Your task to perform on an android device: check data usage Image 0: 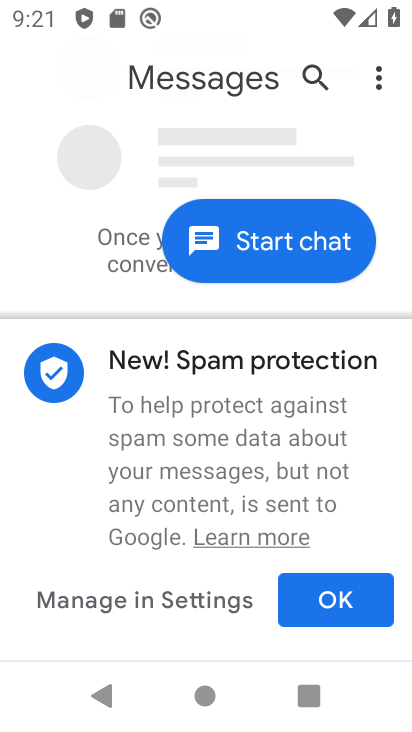
Step 0: press home button
Your task to perform on an android device: check data usage Image 1: 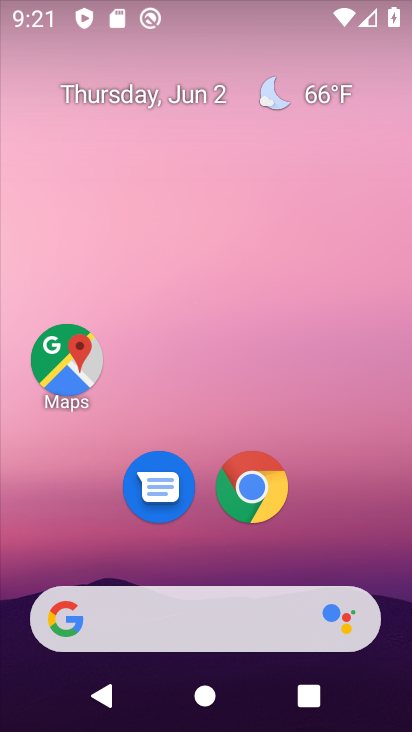
Step 1: drag from (229, 727) to (236, 141)
Your task to perform on an android device: check data usage Image 2: 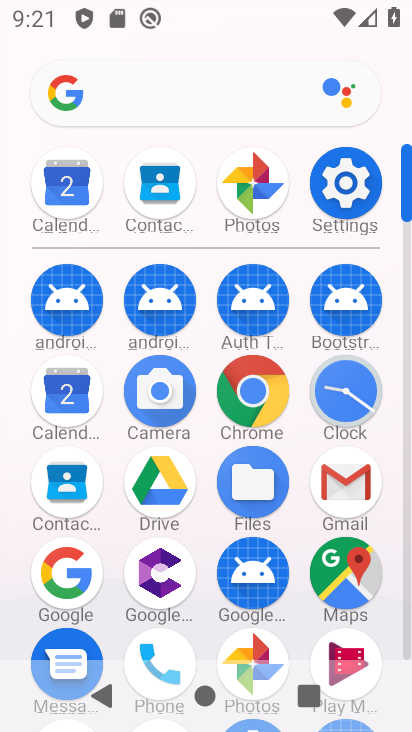
Step 2: click (336, 188)
Your task to perform on an android device: check data usage Image 3: 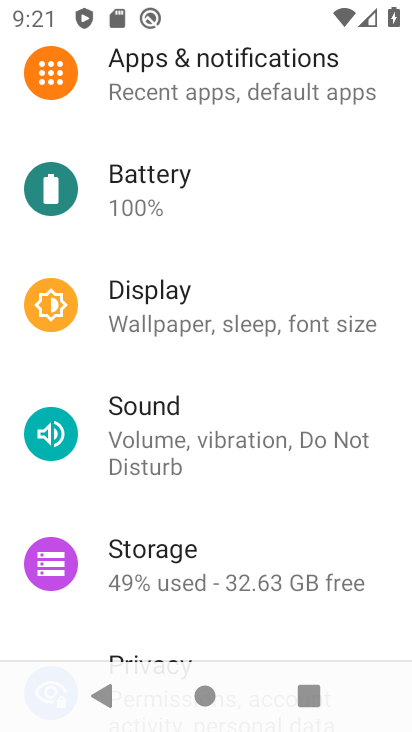
Step 3: drag from (246, 118) to (236, 533)
Your task to perform on an android device: check data usage Image 4: 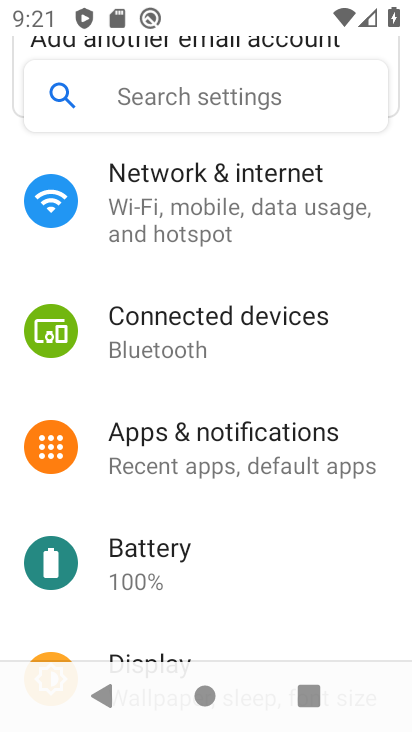
Step 4: drag from (182, 213) to (195, 520)
Your task to perform on an android device: check data usage Image 5: 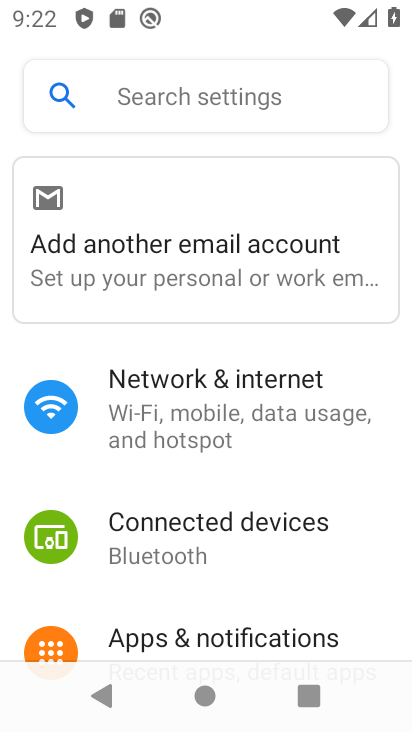
Step 5: click (177, 421)
Your task to perform on an android device: check data usage Image 6: 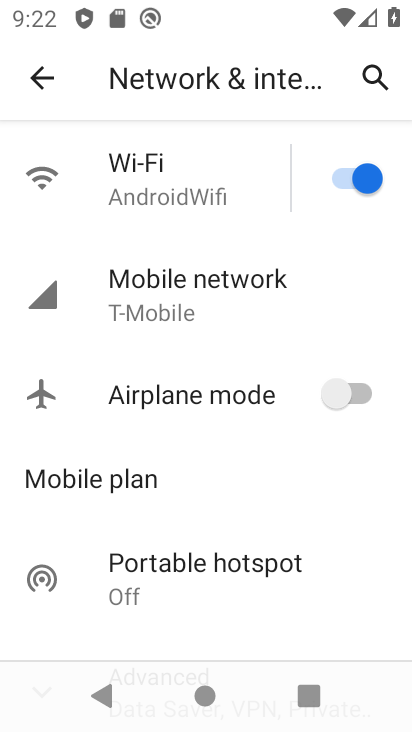
Step 6: click (179, 296)
Your task to perform on an android device: check data usage Image 7: 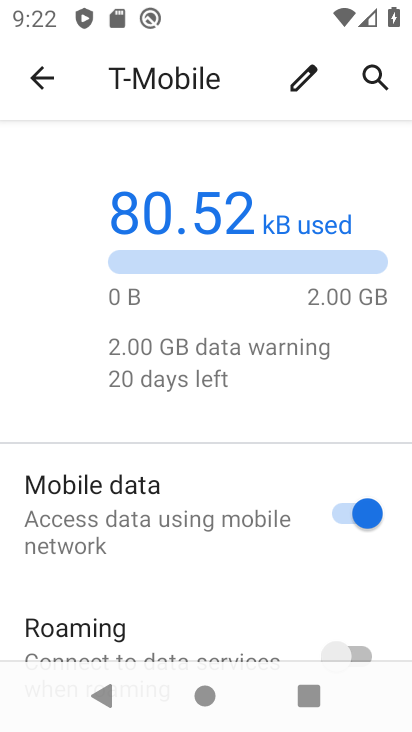
Step 7: drag from (177, 648) to (186, 314)
Your task to perform on an android device: check data usage Image 8: 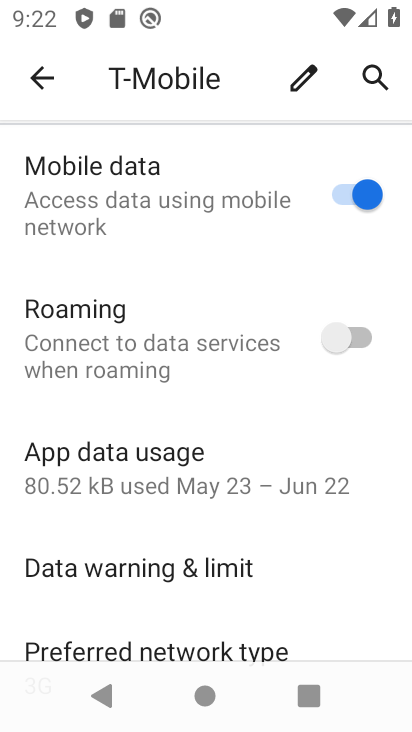
Step 8: click (132, 481)
Your task to perform on an android device: check data usage Image 9: 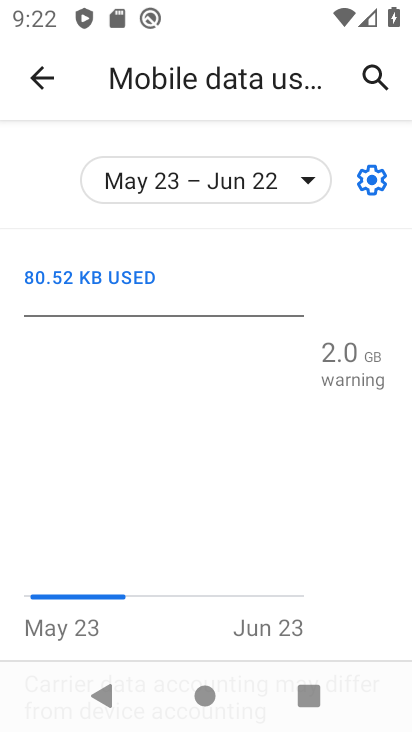
Step 9: task complete